Your task to perform on an android device: turn off data saver in the chrome app Image 0: 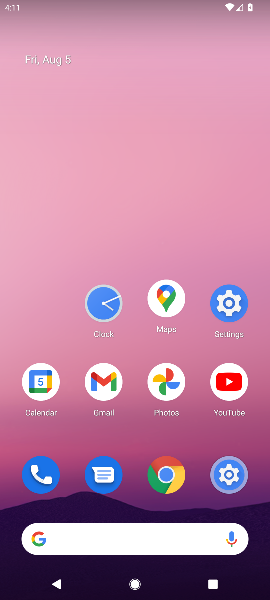
Step 0: click (174, 472)
Your task to perform on an android device: turn off data saver in the chrome app Image 1: 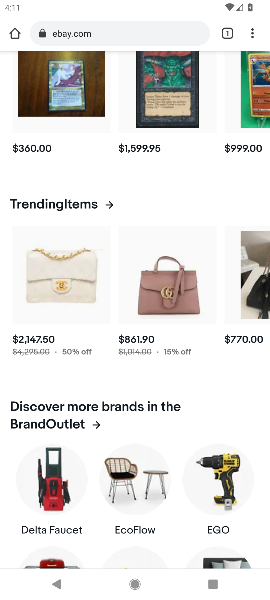
Step 1: click (251, 30)
Your task to perform on an android device: turn off data saver in the chrome app Image 2: 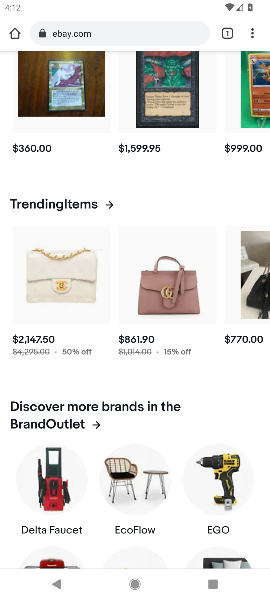
Step 2: click (251, 29)
Your task to perform on an android device: turn off data saver in the chrome app Image 3: 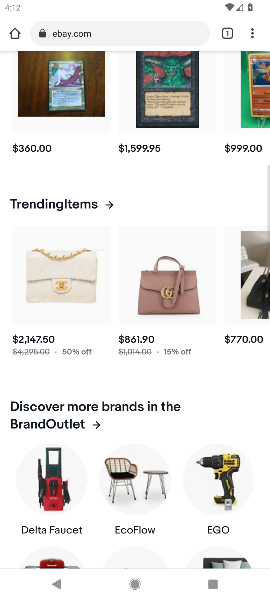
Step 3: click (251, 29)
Your task to perform on an android device: turn off data saver in the chrome app Image 4: 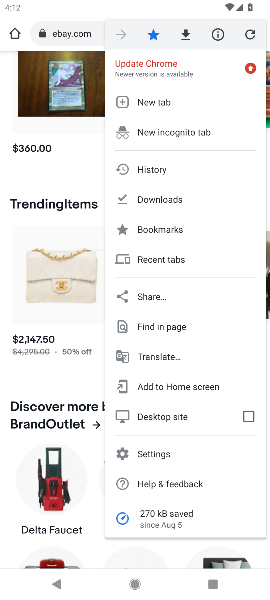
Step 4: click (152, 442)
Your task to perform on an android device: turn off data saver in the chrome app Image 5: 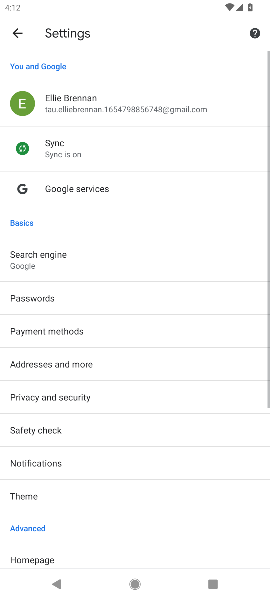
Step 5: drag from (141, 518) to (164, 227)
Your task to perform on an android device: turn off data saver in the chrome app Image 6: 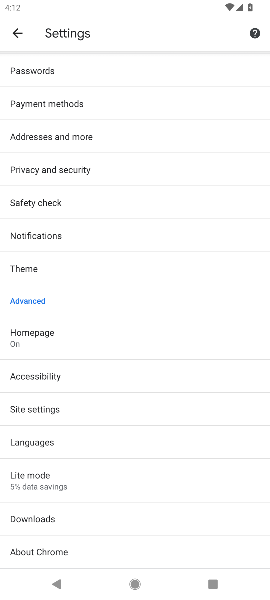
Step 6: click (61, 483)
Your task to perform on an android device: turn off data saver in the chrome app Image 7: 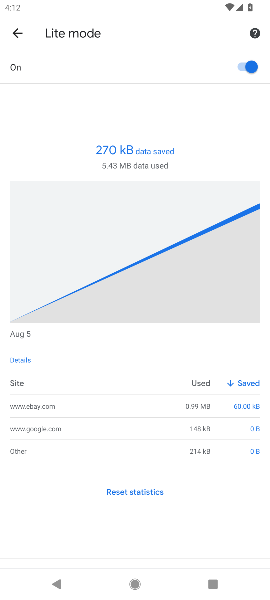
Step 7: click (232, 64)
Your task to perform on an android device: turn off data saver in the chrome app Image 8: 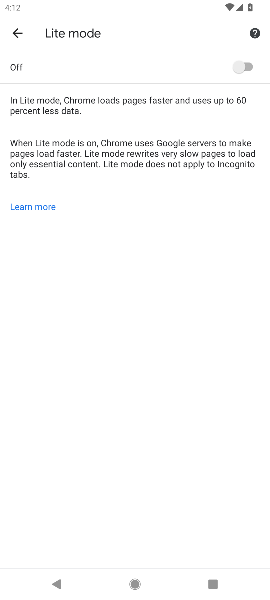
Step 8: task complete